Your task to perform on an android device: open a bookmark in the chrome app Image 0: 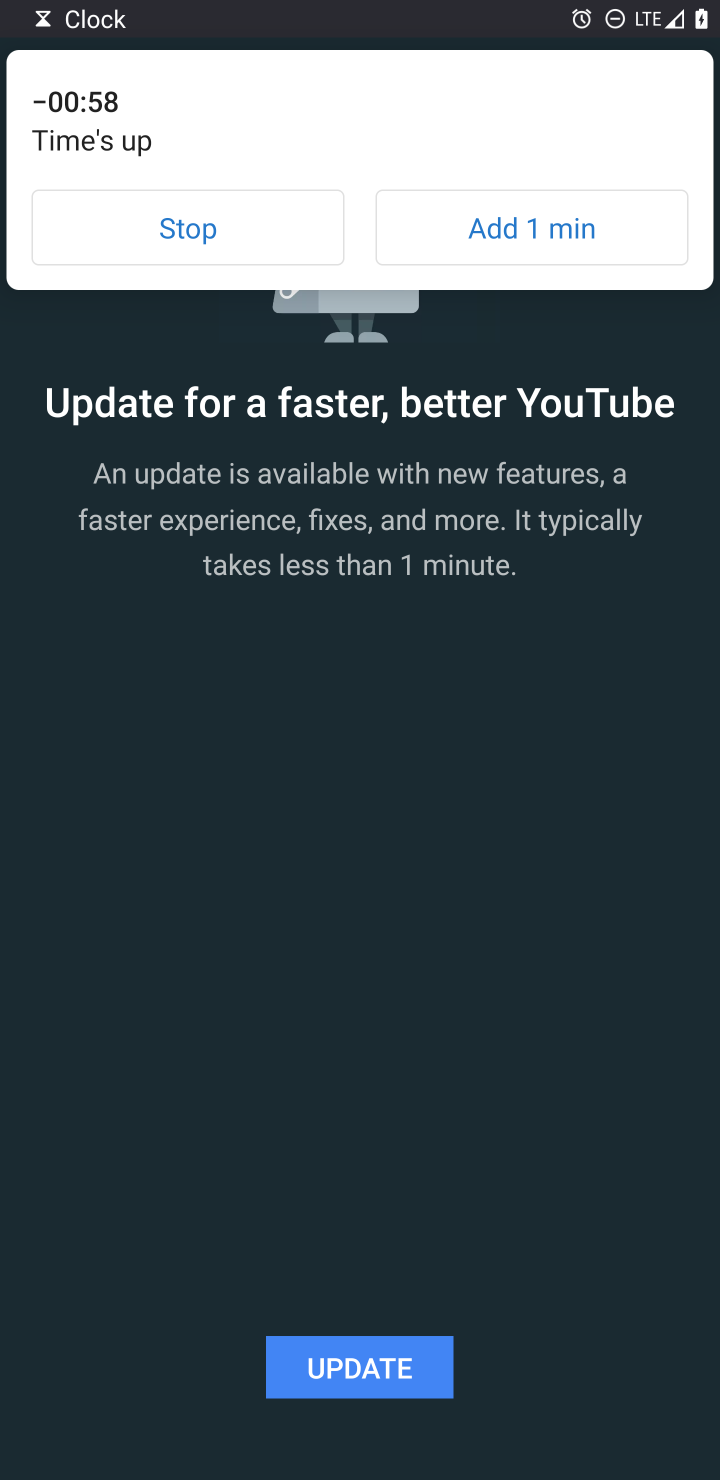
Step 0: press home button
Your task to perform on an android device: open a bookmark in the chrome app Image 1: 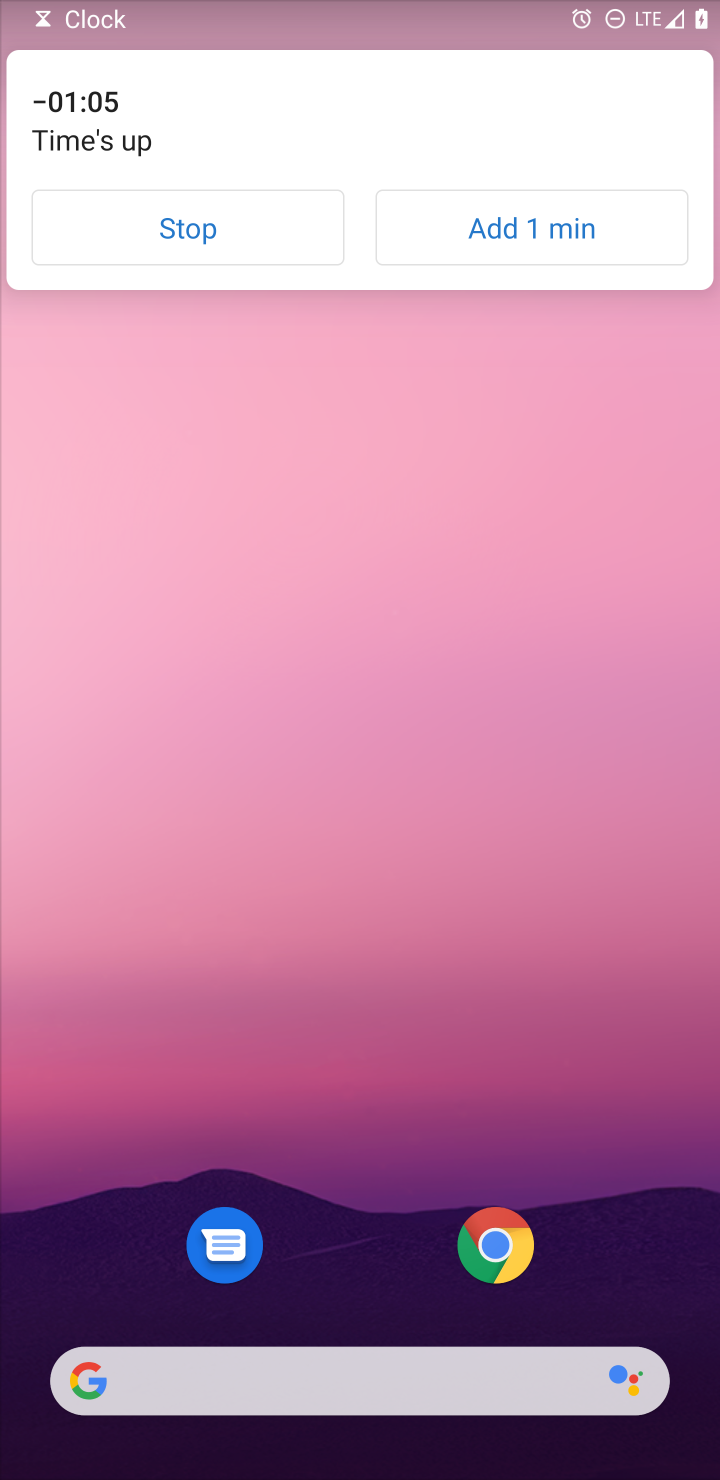
Step 1: click (495, 1251)
Your task to perform on an android device: open a bookmark in the chrome app Image 2: 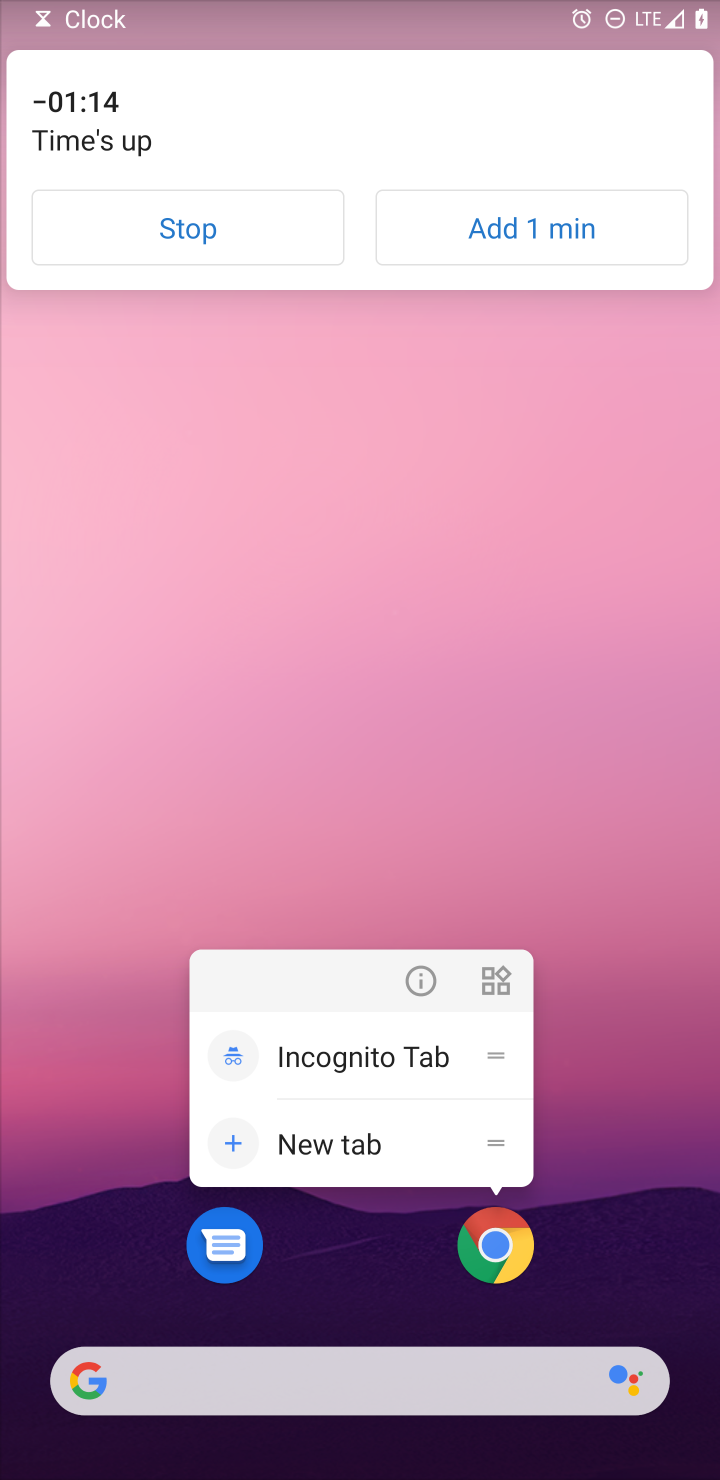
Step 2: click (495, 1251)
Your task to perform on an android device: open a bookmark in the chrome app Image 3: 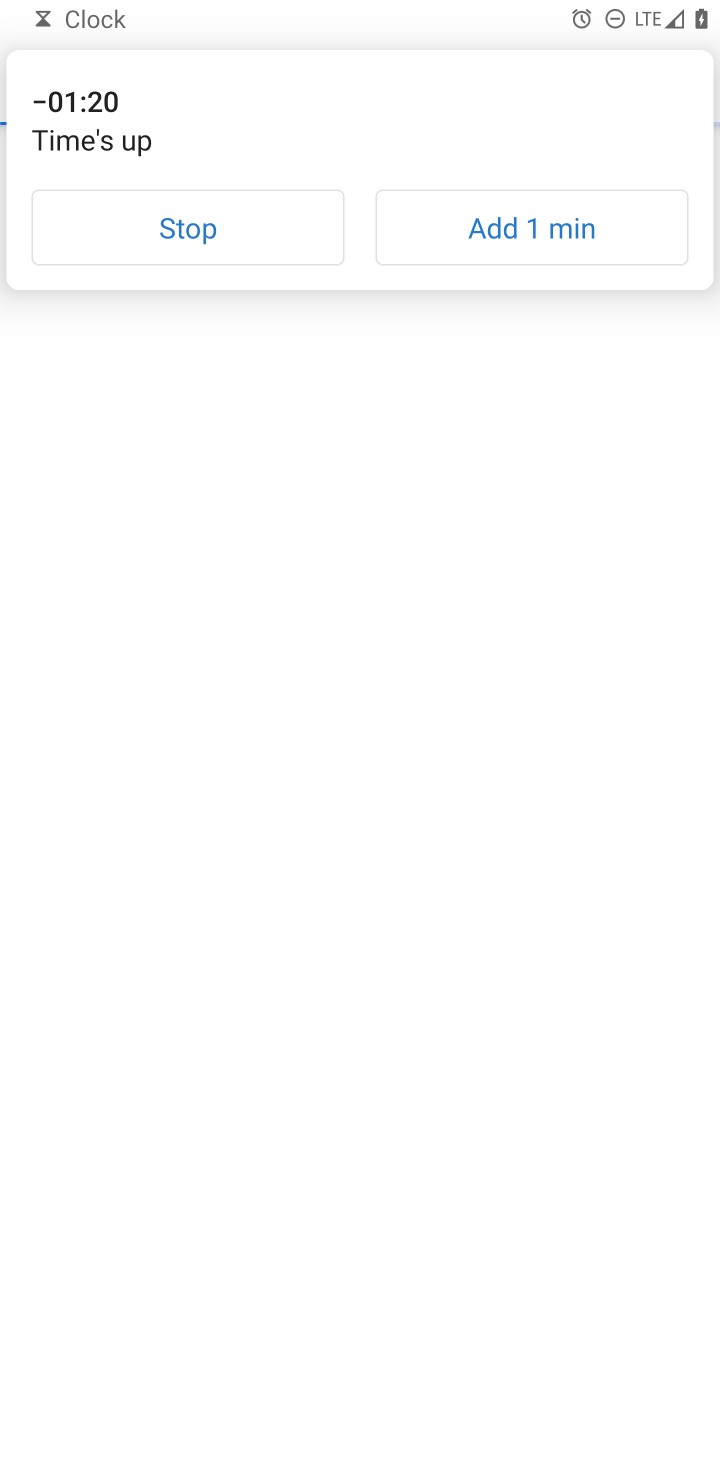
Step 3: click (180, 239)
Your task to perform on an android device: open a bookmark in the chrome app Image 4: 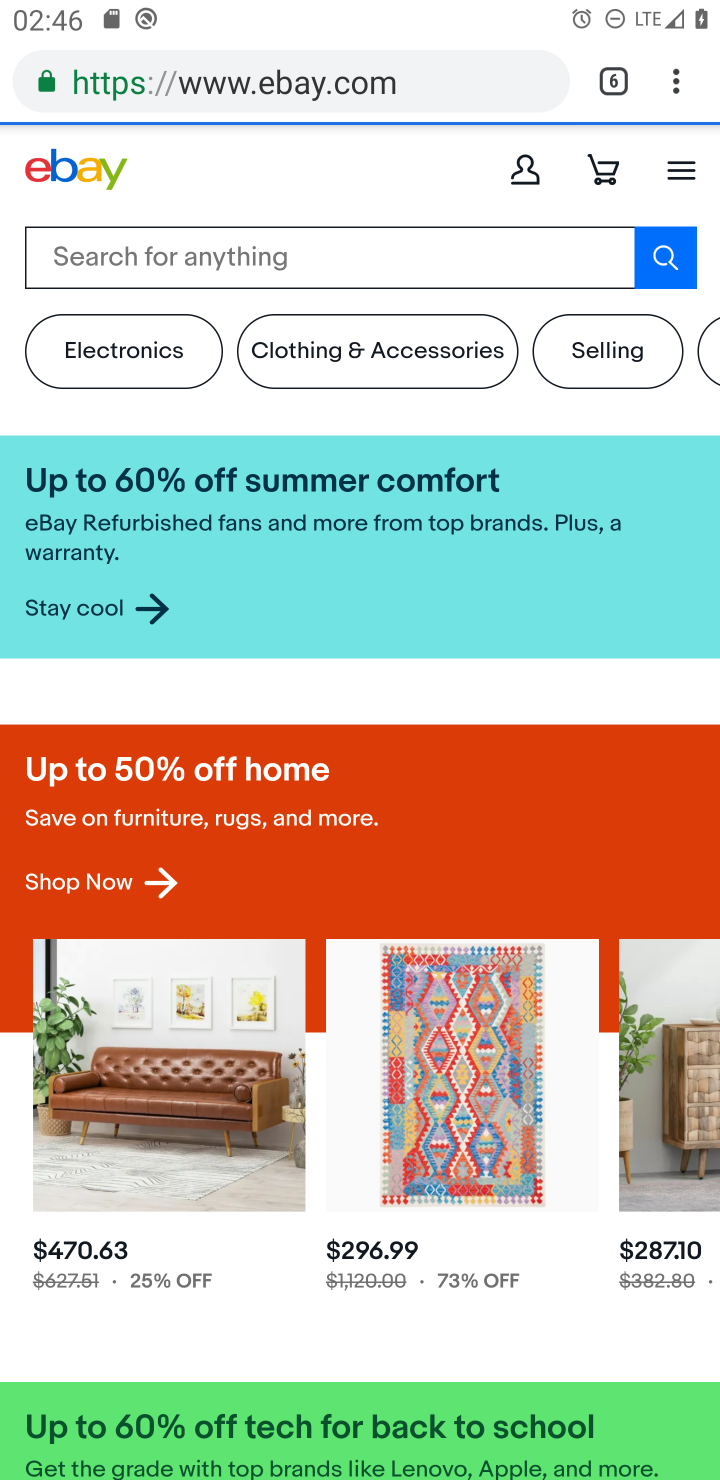
Step 4: click (671, 85)
Your task to perform on an android device: open a bookmark in the chrome app Image 5: 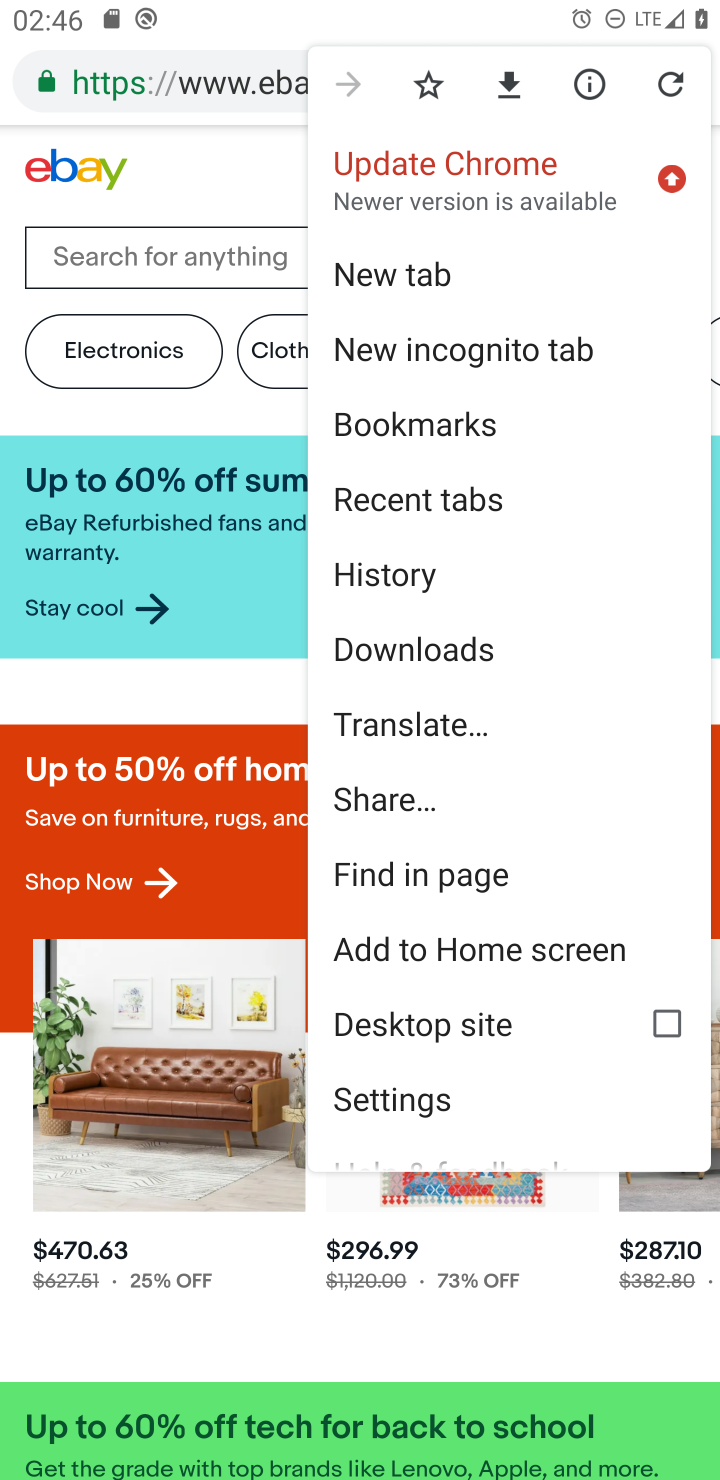
Step 5: click (439, 419)
Your task to perform on an android device: open a bookmark in the chrome app Image 6: 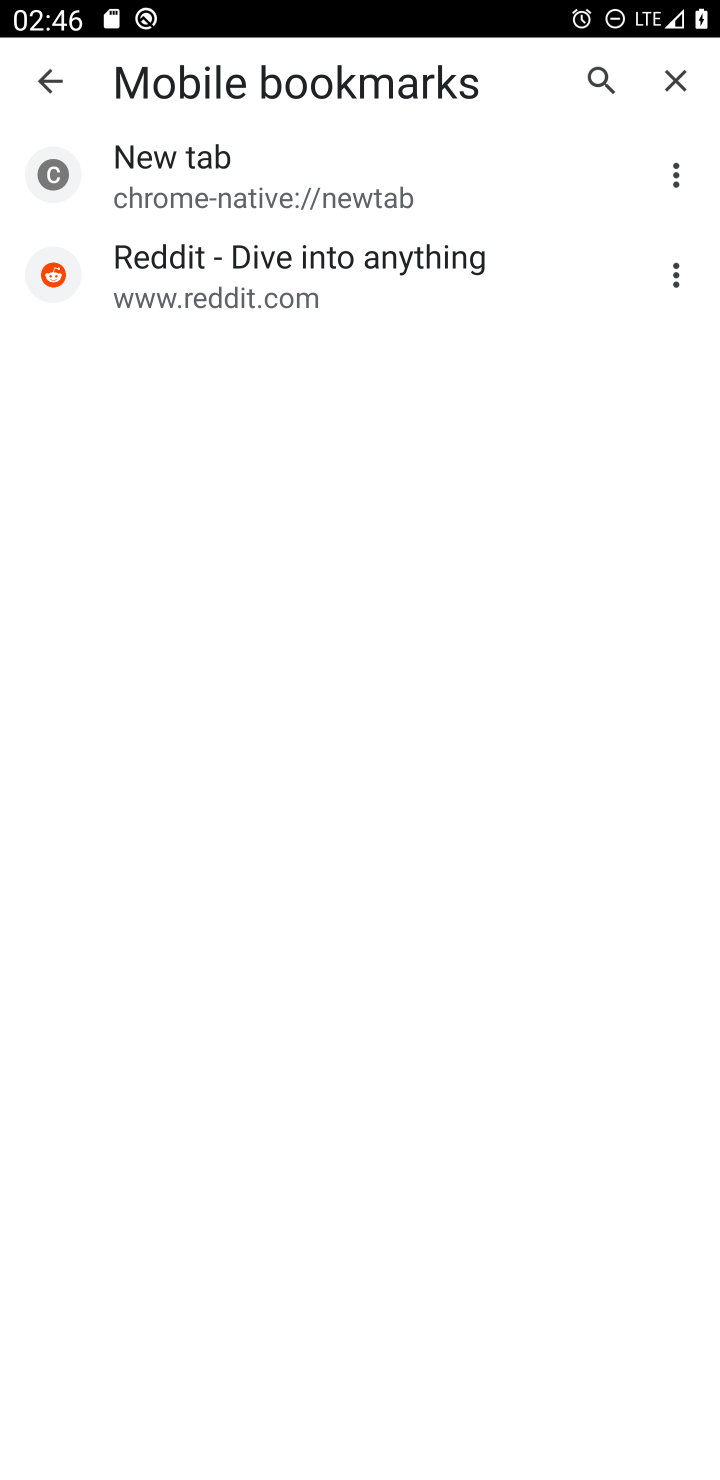
Step 6: click (249, 250)
Your task to perform on an android device: open a bookmark in the chrome app Image 7: 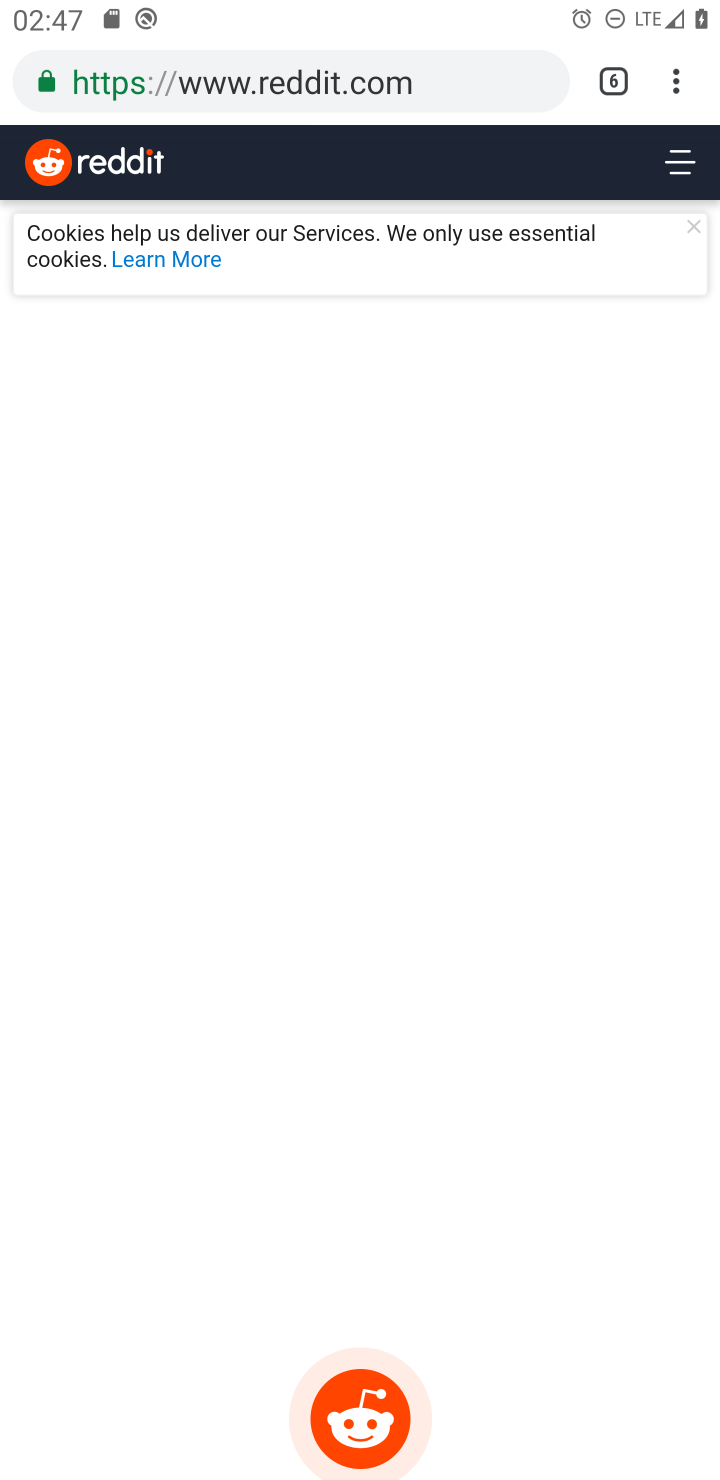
Step 7: task complete